Your task to perform on an android device: change the clock display to analog Image 0: 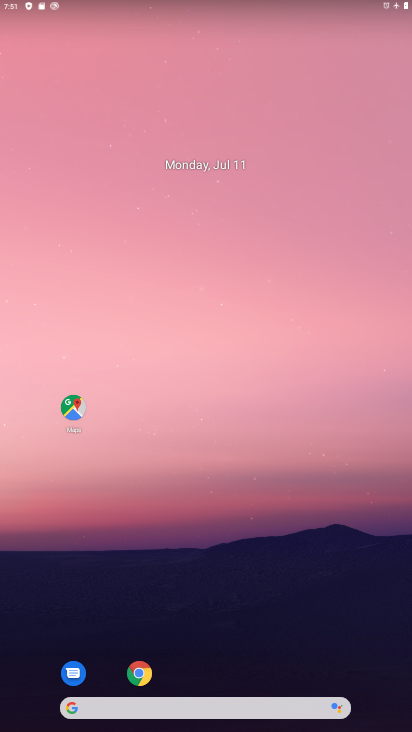
Step 0: drag from (303, 629) to (271, 76)
Your task to perform on an android device: change the clock display to analog Image 1: 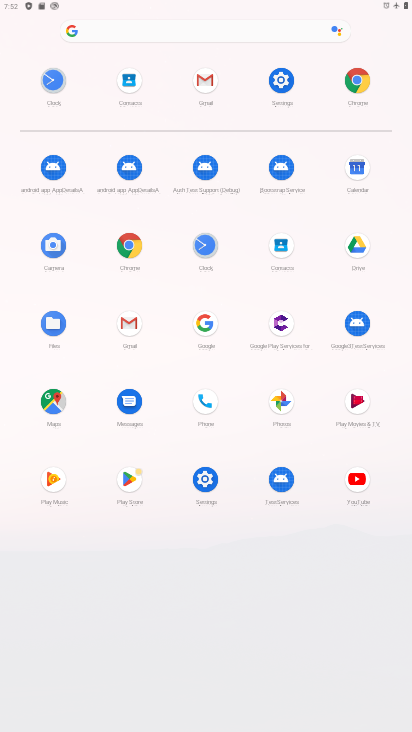
Step 1: click (207, 246)
Your task to perform on an android device: change the clock display to analog Image 2: 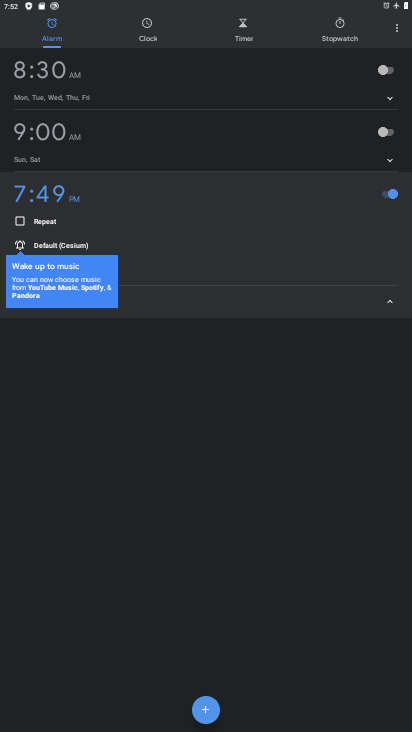
Step 2: click (402, 29)
Your task to perform on an android device: change the clock display to analog Image 3: 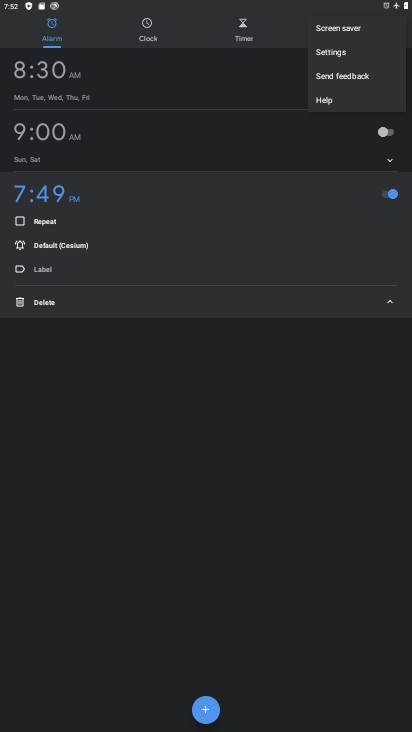
Step 3: click (345, 53)
Your task to perform on an android device: change the clock display to analog Image 4: 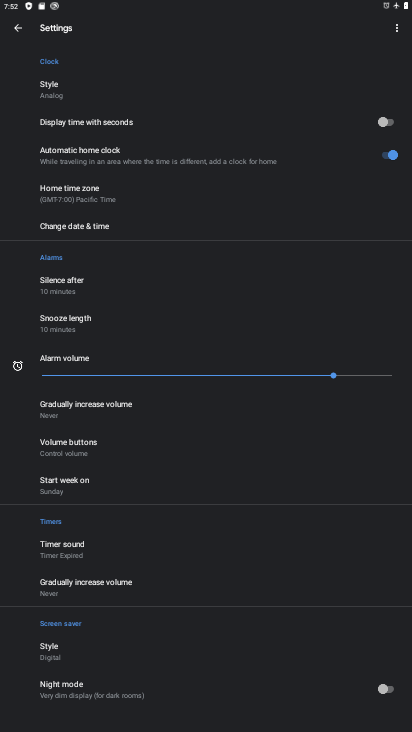
Step 4: task complete